Your task to perform on an android device: Open sound settings Image 0: 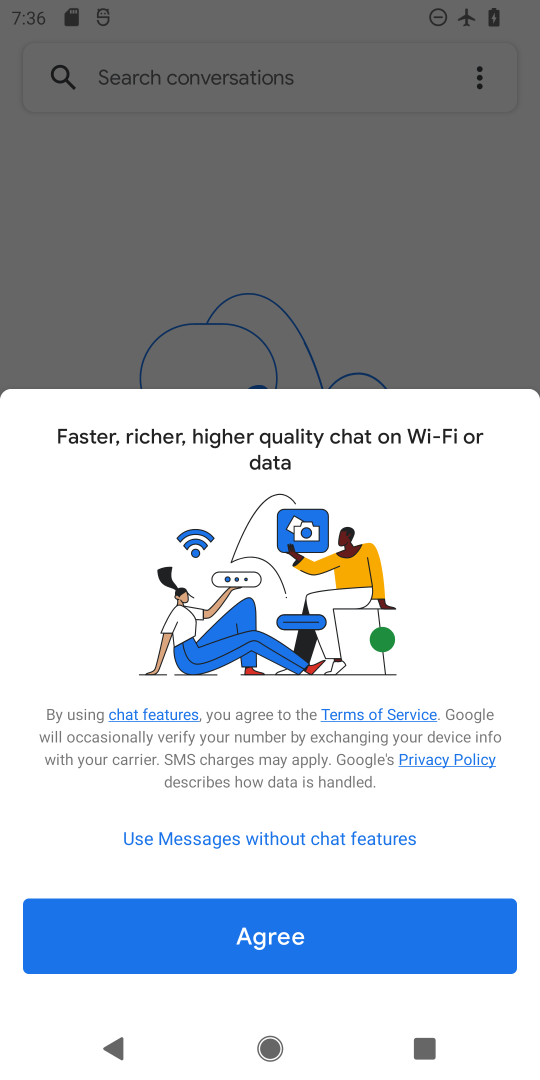
Step 0: press back button
Your task to perform on an android device: Open sound settings Image 1: 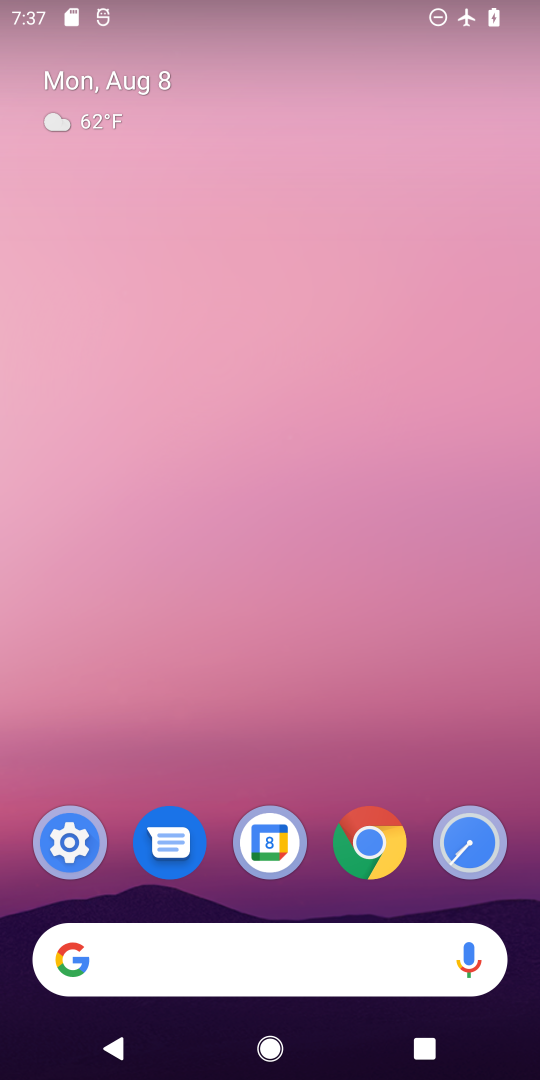
Step 1: drag from (340, 921) to (500, 760)
Your task to perform on an android device: Open sound settings Image 2: 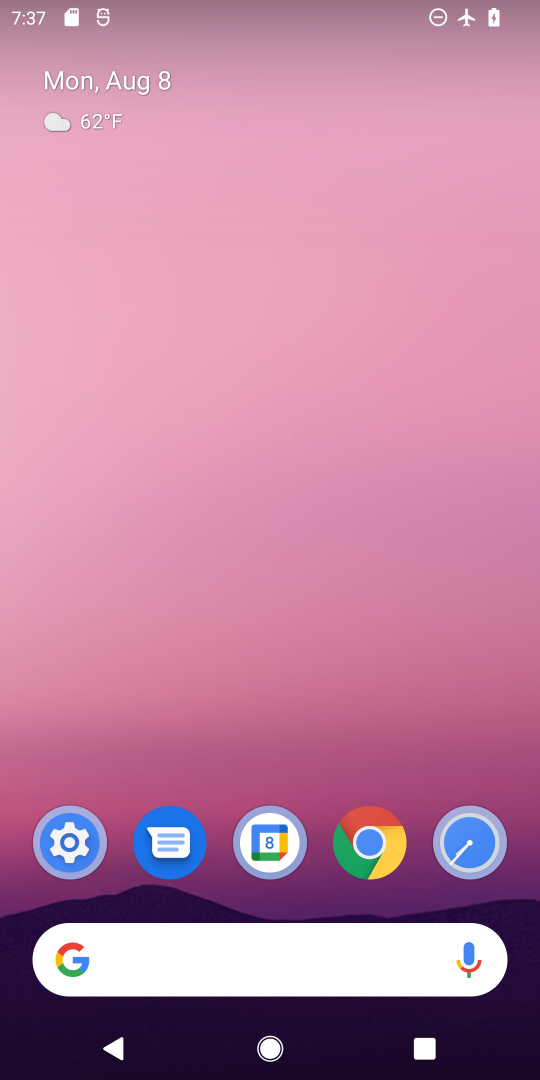
Step 2: drag from (358, 917) to (299, 128)
Your task to perform on an android device: Open sound settings Image 3: 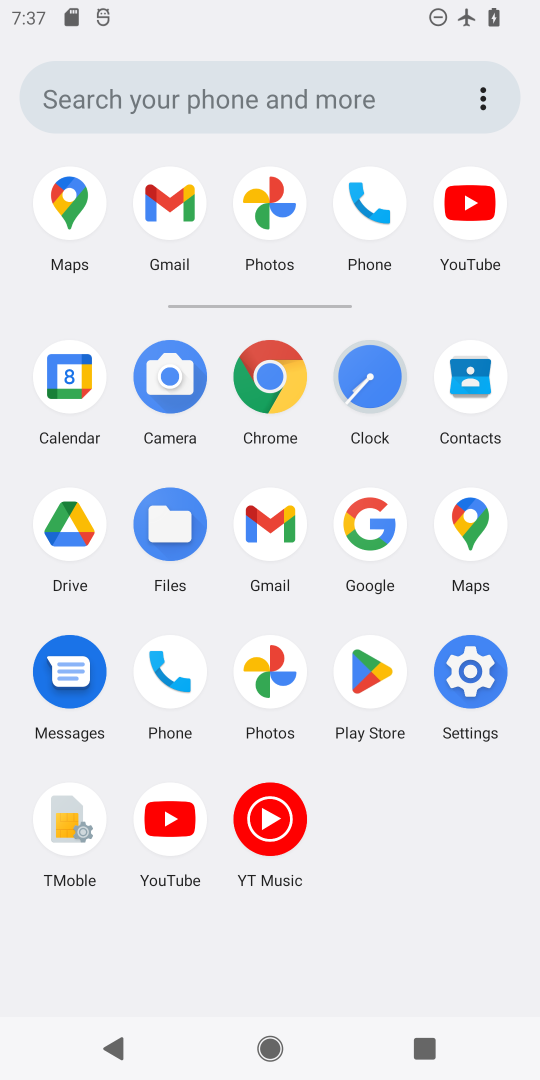
Step 3: click (434, 701)
Your task to perform on an android device: Open sound settings Image 4: 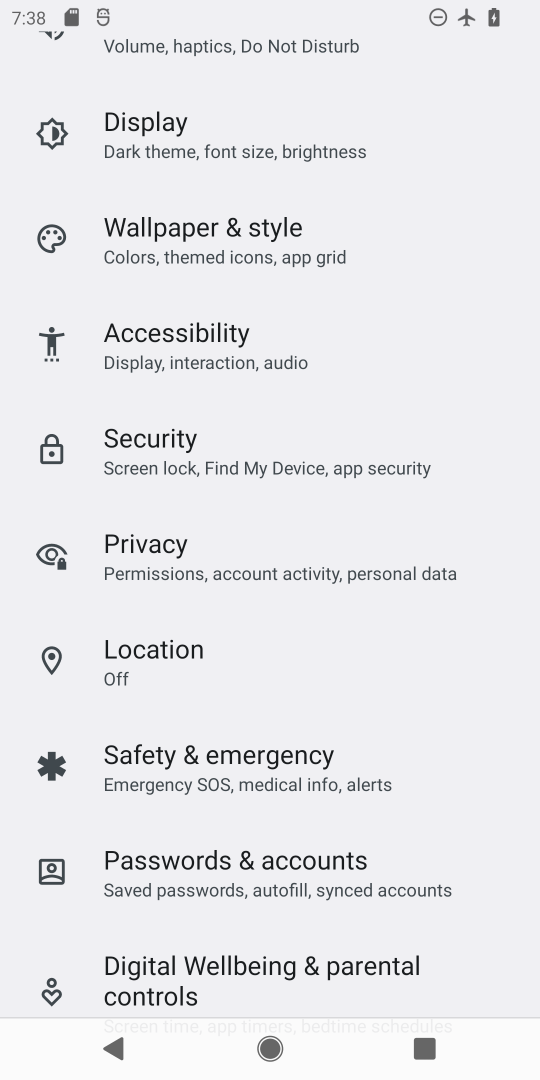
Step 4: drag from (247, 351) to (232, 949)
Your task to perform on an android device: Open sound settings Image 5: 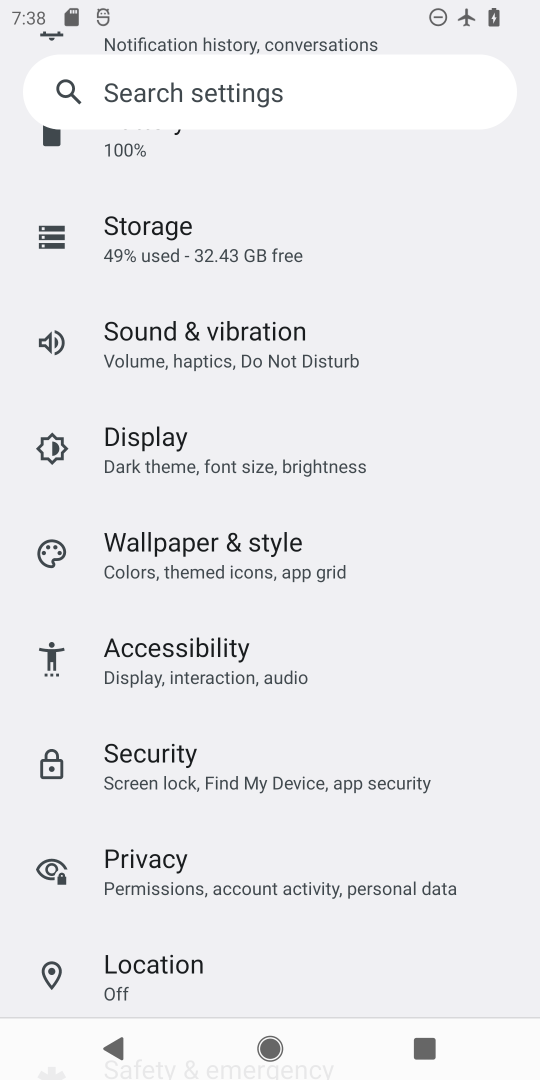
Step 5: click (210, 348)
Your task to perform on an android device: Open sound settings Image 6: 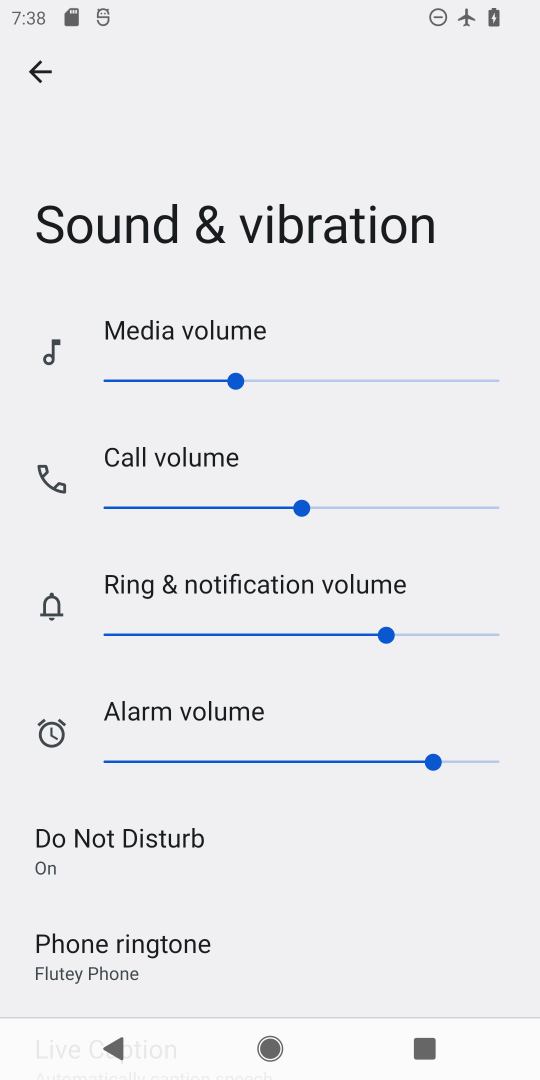
Step 6: task complete